Your task to perform on an android device: Search for sushi restaurants on Maps Image 0: 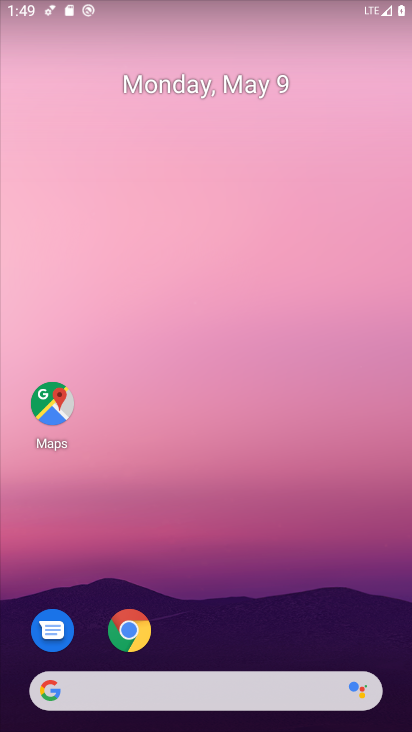
Step 0: click (54, 406)
Your task to perform on an android device: Search for sushi restaurants on Maps Image 1: 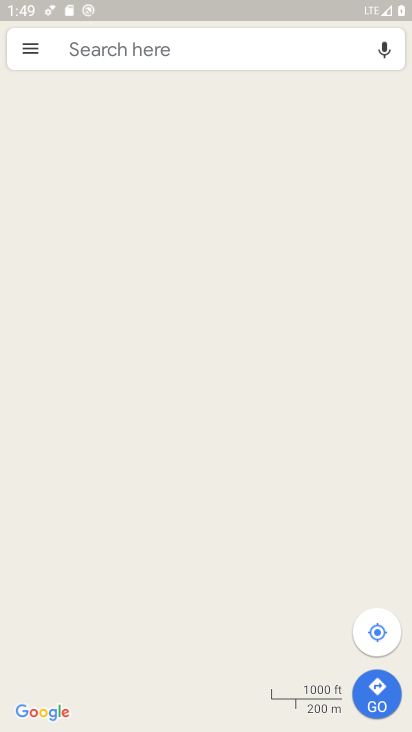
Step 1: click (219, 48)
Your task to perform on an android device: Search for sushi restaurants on Maps Image 2: 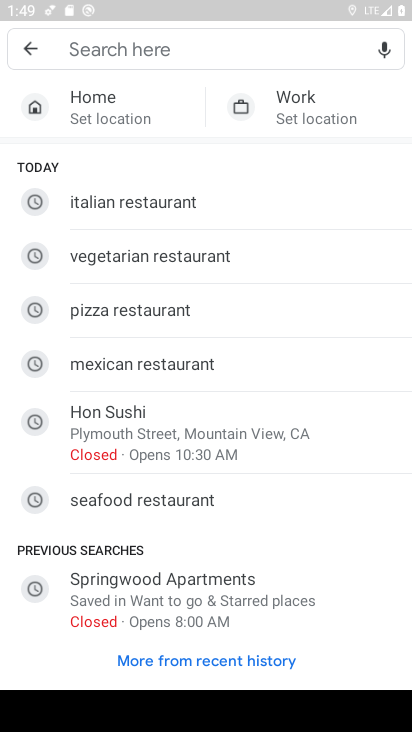
Step 2: type "sushi restaurants"
Your task to perform on an android device: Search for sushi restaurants on Maps Image 3: 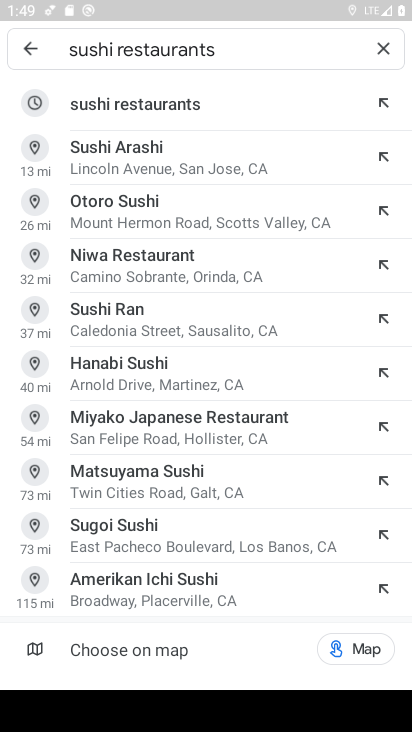
Step 3: click (211, 119)
Your task to perform on an android device: Search for sushi restaurants on Maps Image 4: 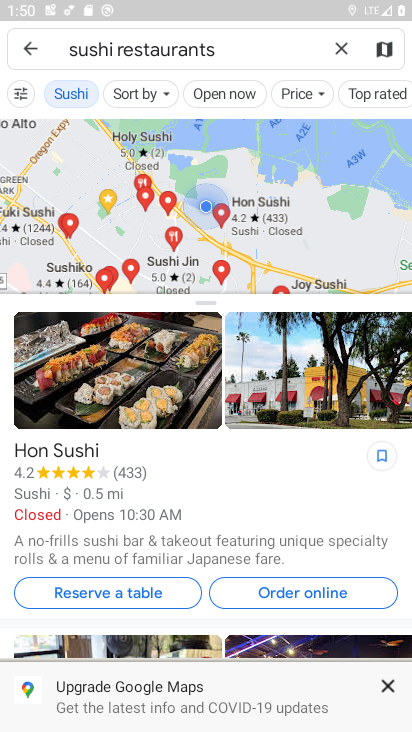
Step 4: task complete